Your task to perform on an android device: Open calendar and show me the first week of next month Image 0: 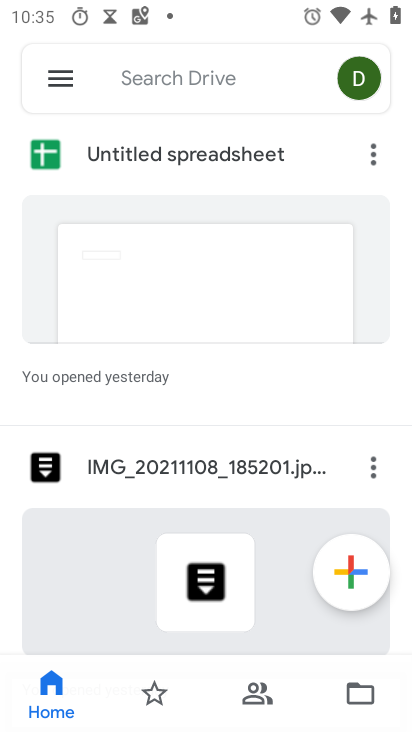
Step 0: press home button
Your task to perform on an android device: Open calendar and show me the first week of next month Image 1: 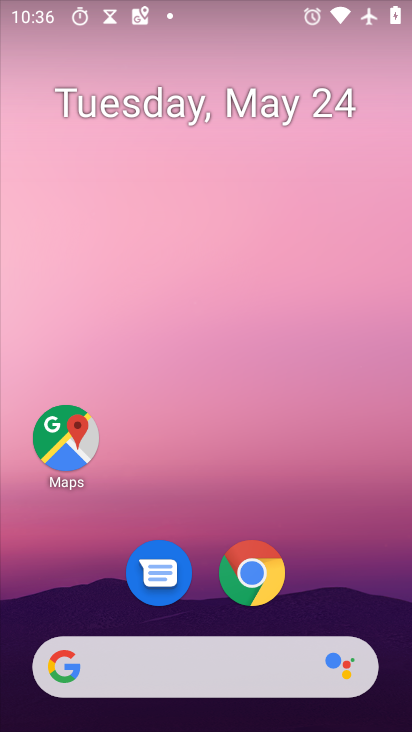
Step 1: drag from (342, 450) to (342, 6)
Your task to perform on an android device: Open calendar and show me the first week of next month Image 2: 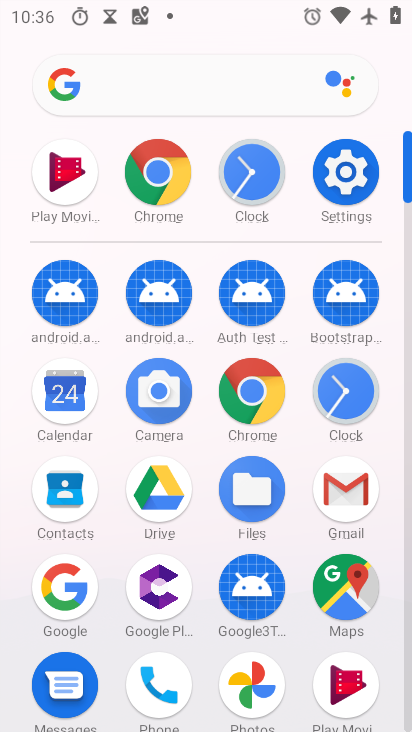
Step 2: click (54, 394)
Your task to perform on an android device: Open calendar and show me the first week of next month Image 3: 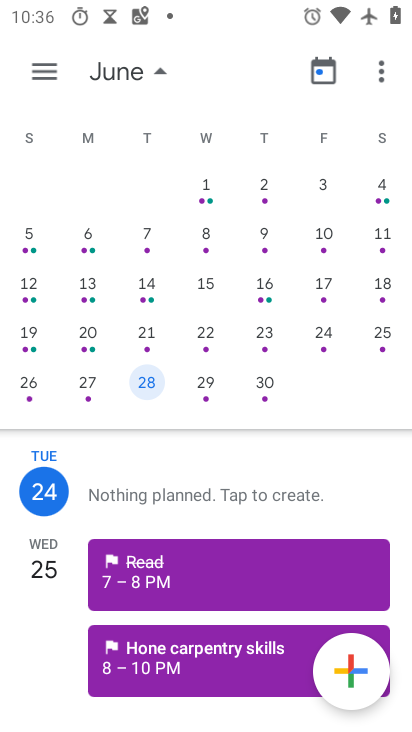
Step 3: drag from (395, 304) to (15, 491)
Your task to perform on an android device: Open calendar and show me the first week of next month Image 4: 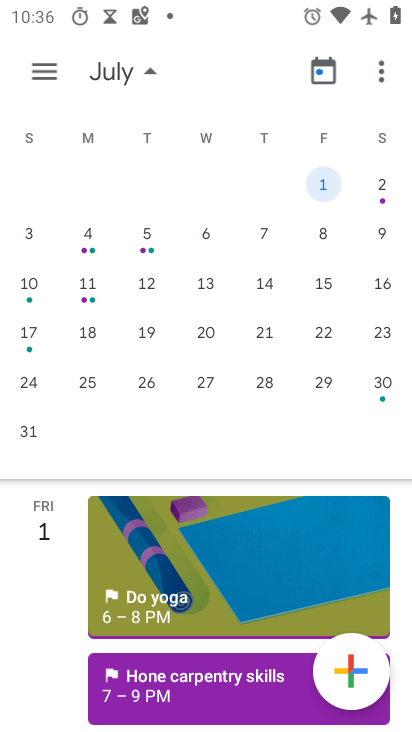
Step 4: click (139, 255)
Your task to perform on an android device: Open calendar and show me the first week of next month Image 5: 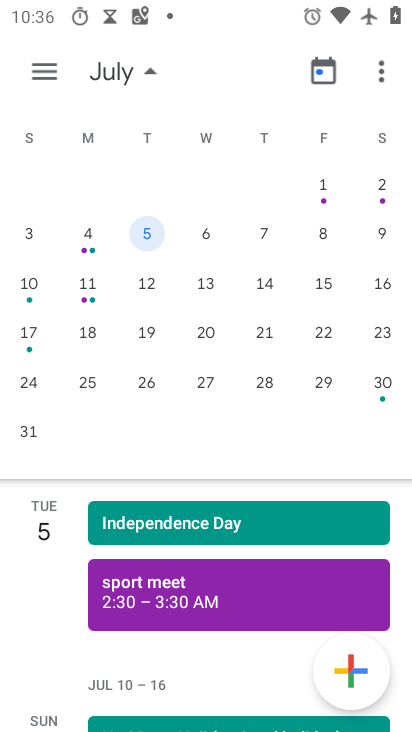
Step 5: task complete